Your task to perform on an android device: Open battery settings Image 0: 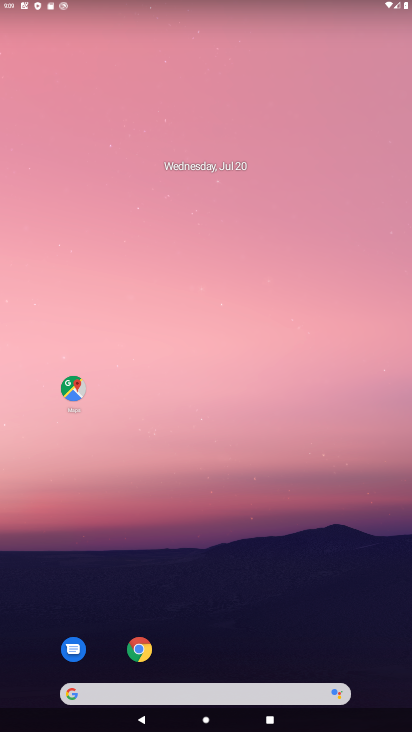
Step 0: drag from (289, 631) to (324, 103)
Your task to perform on an android device: Open battery settings Image 1: 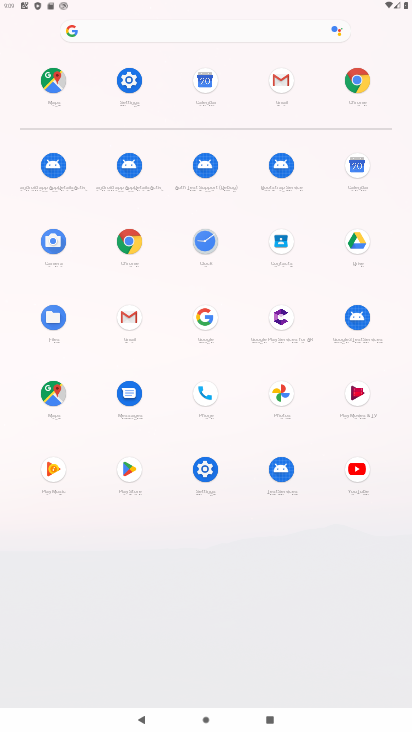
Step 1: click (143, 74)
Your task to perform on an android device: Open battery settings Image 2: 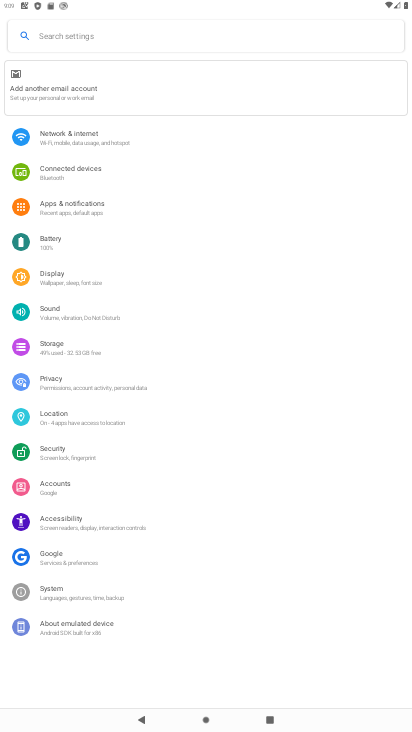
Step 2: click (75, 241)
Your task to perform on an android device: Open battery settings Image 3: 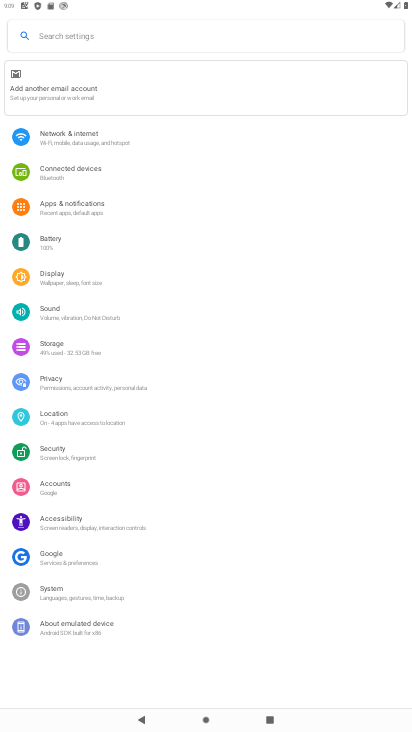
Step 3: task complete